Your task to perform on an android device: Open ESPN.com Image 0: 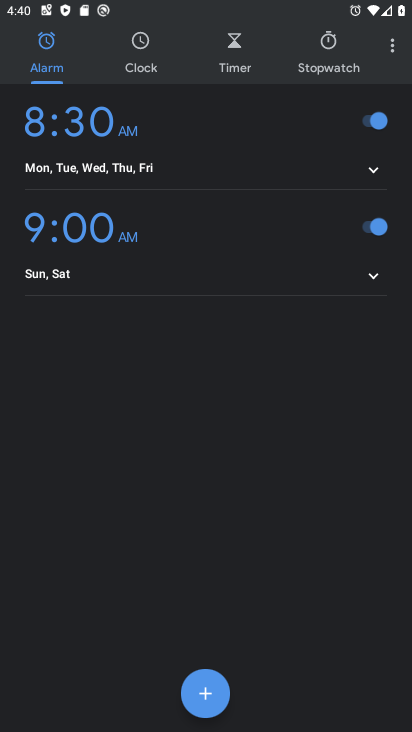
Step 0: press home button
Your task to perform on an android device: Open ESPN.com Image 1: 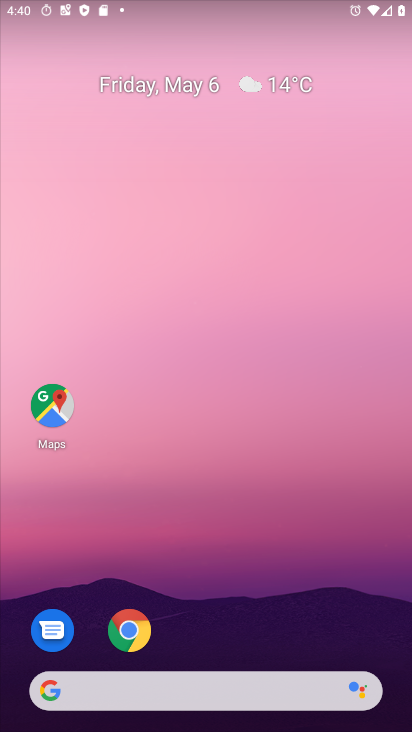
Step 1: press home button
Your task to perform on an android device: Open ESPN.com Image 2: 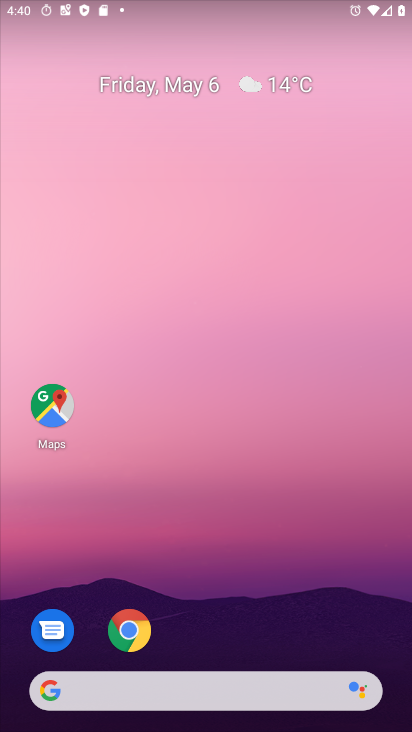
Step 2: press home button
Your task to perform on an android device: Open ESPN.com Image 3: 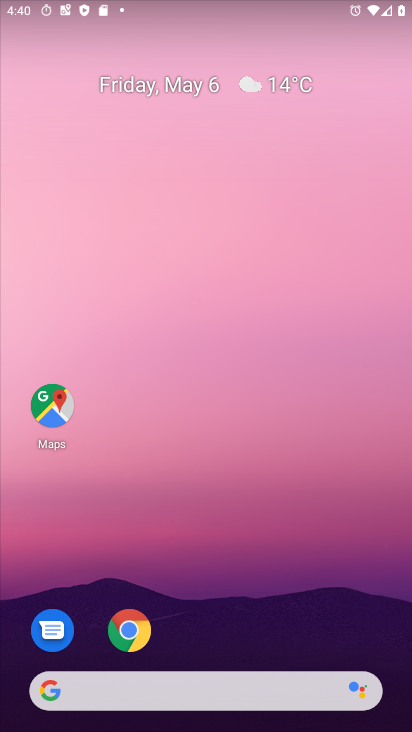
Step 3: press home button
Your task to perform on an android device: Open ESPN.com Image 4: 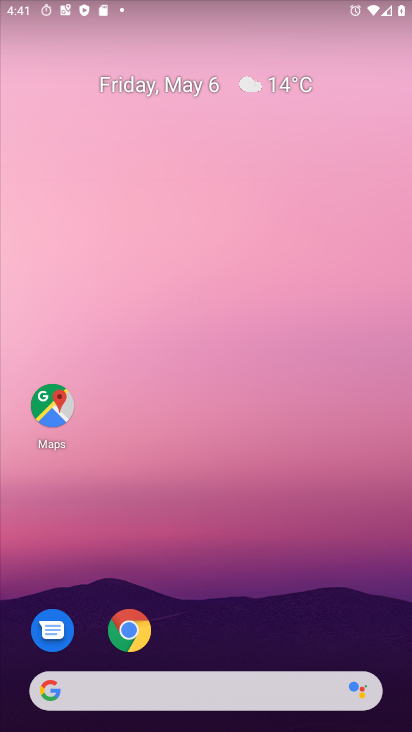
Step 4: click (238, 675)
Your task to perform on an android device: Open ESPN.com Image 5: 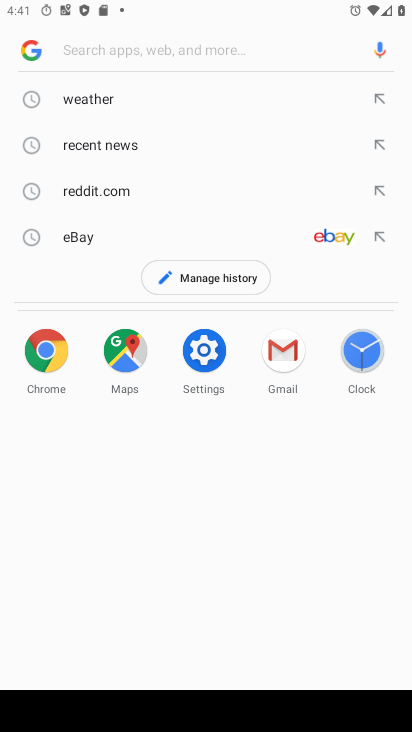
Step 5: click (225, 682)
Your task to perform on an android device: Open ESPN.com Image 6: 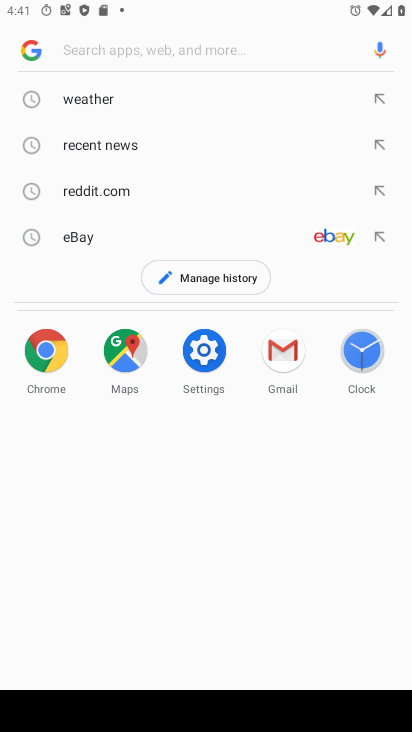
Step 6: type "espn.com"
Your task to perform on an android device: Open ESPN.com Image 7: 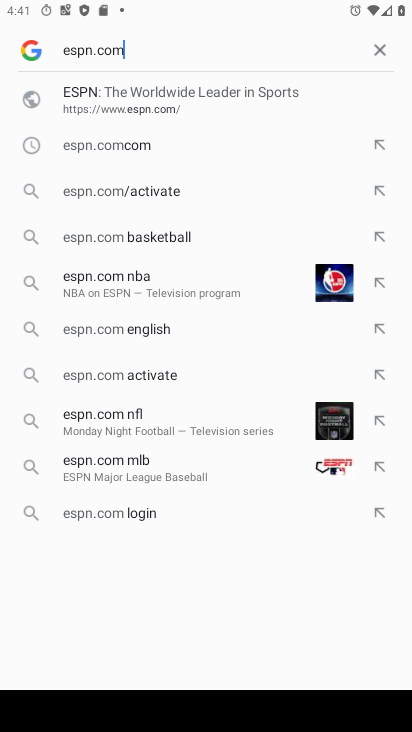
Step 7: click (131, 84)
Your task to perform on an android device: Open ESPN.com Image 8: 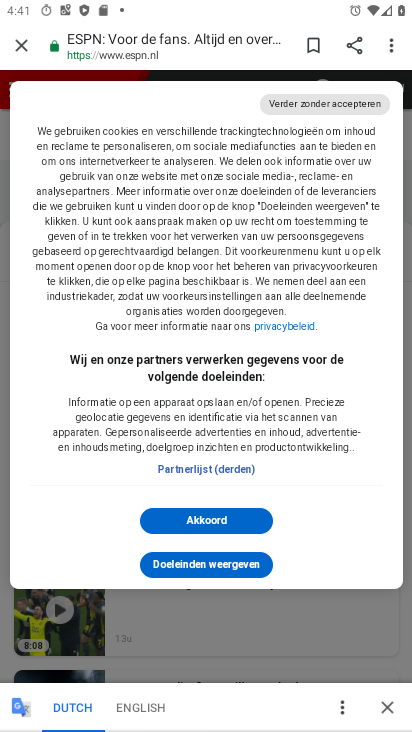
Step 8: task complete